Your task to perform on an android device: Open eBay Image 0: 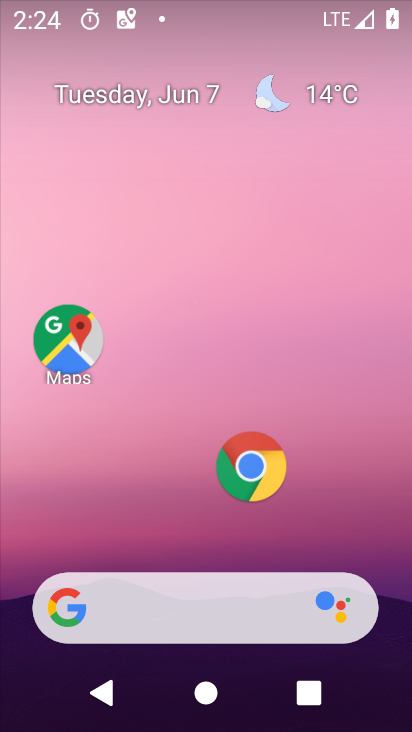
Step 0: click (269, 479)
Your task to perform on an android device: Open eBay Image 1: 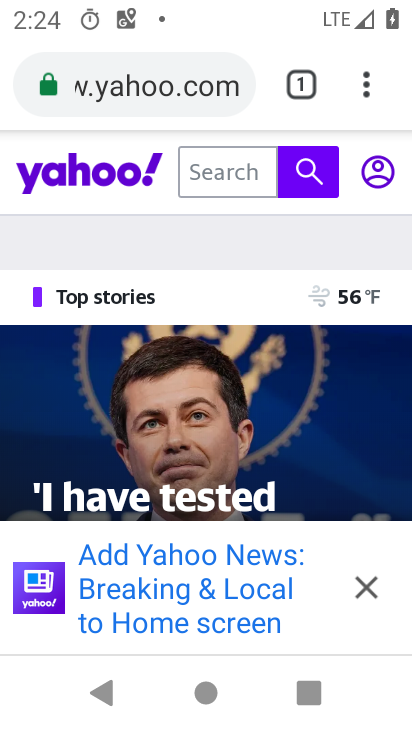
Step 1: click (307, 94)
Your task to perform on an android device: Open eBay Image 2: 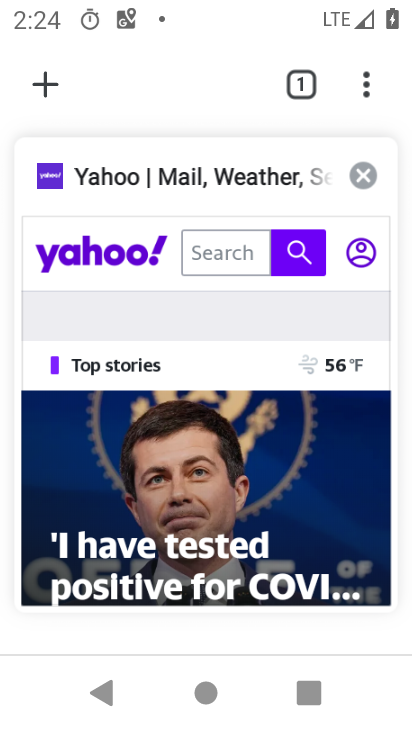
Step 2: click (368, 182)
Your task to perform on an android device: Open eBay Image 3: 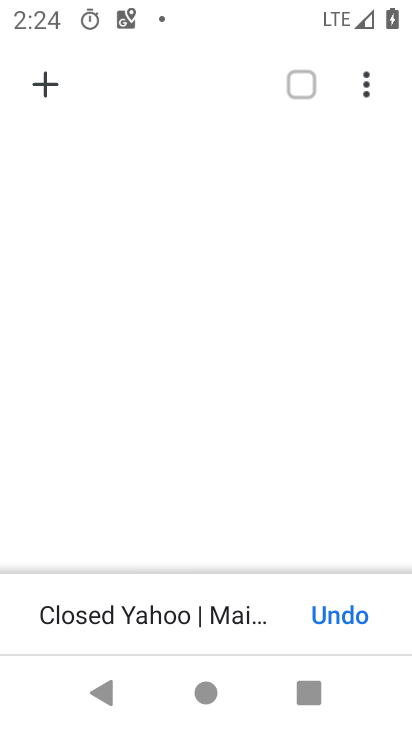
Step 3: click (48, 86)
Your task to perform on an android device: Open eBay Image 4: 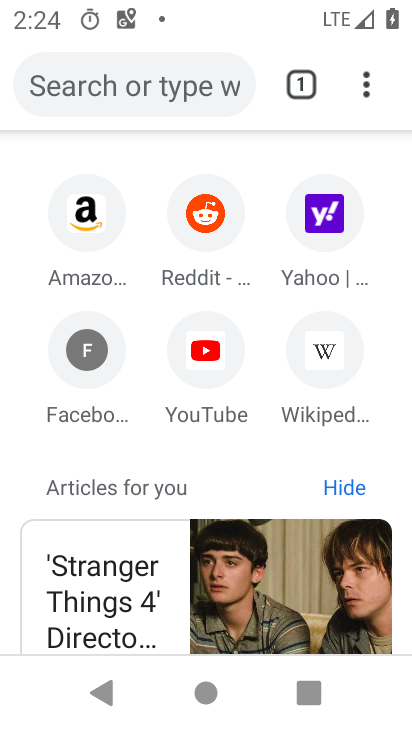
Step 4: click (154, 106)
Your task to perform on an android device: Open eBay Image 5: 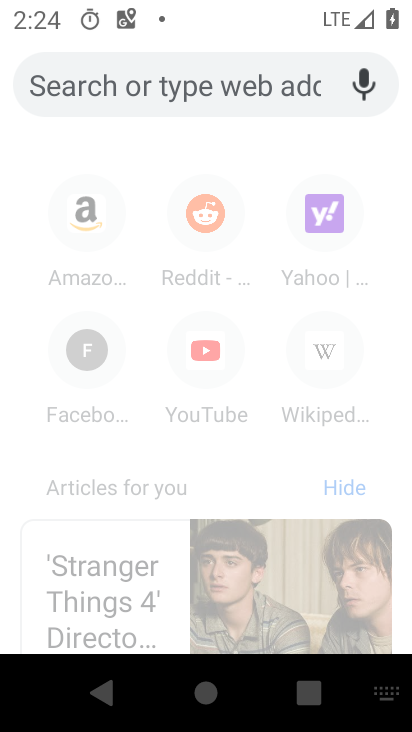
Step 5: type "ebay.com"
Your task to perform on an android device: Open eBay Image 6: 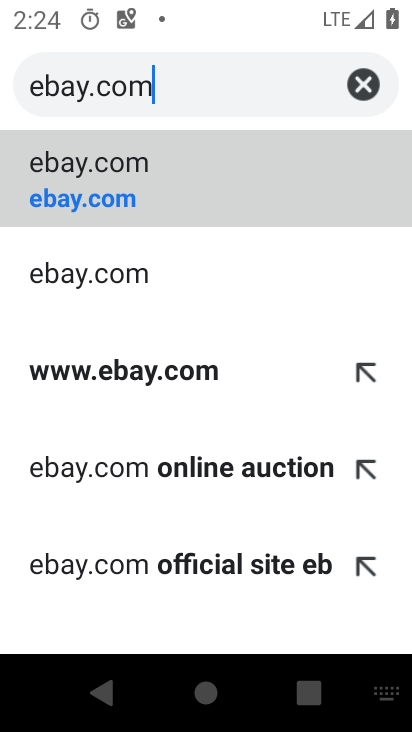
Step 6: click (247, 158)
Your task to perform on an android device: Open eBay Image 7: 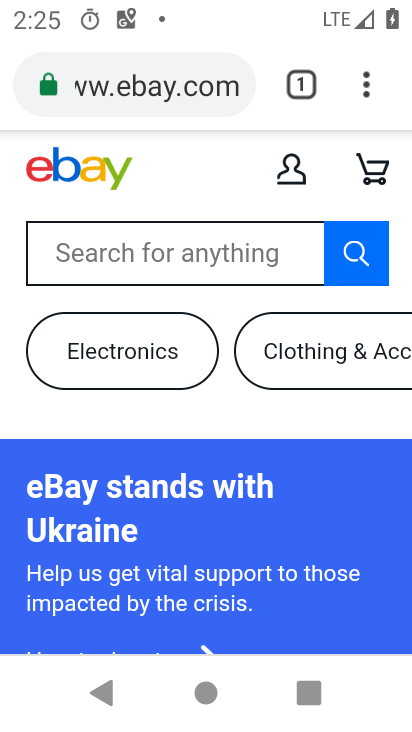
Step 7: task complete